Your task to perform on an android device: toggle notifications settings in the gmail app Image 0: 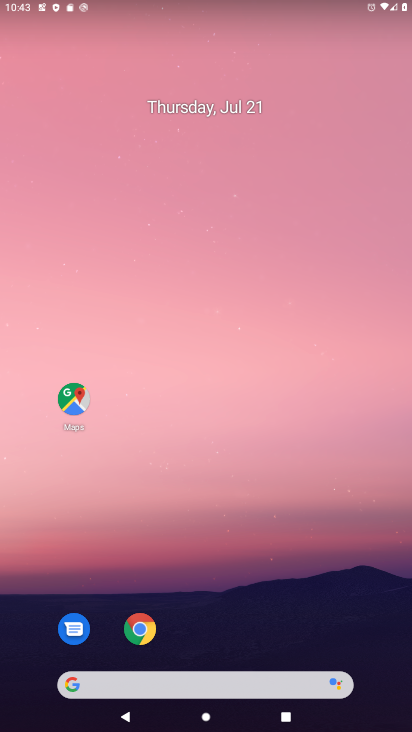
Step 0: drag from (291, 605) to (314, 137)
Your task to perform on an android device: toggle notifications settings in the gmail app Image 1: 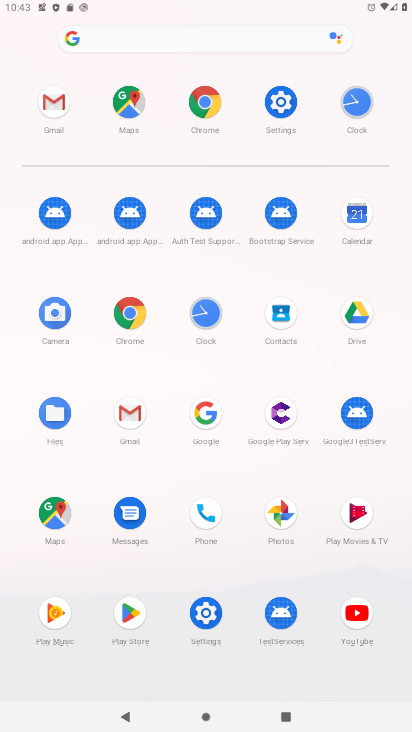
Step 1: click (126, 399)
Your task to perform on an android device: toggle notifications settings in the gmail app Image 2: 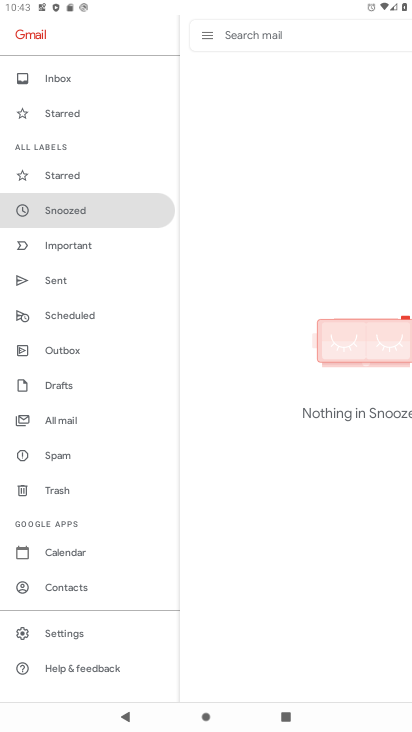
Step 2: press home button
Your task to perform on an android device: toggle notifications settings in the gmail app Image 3: 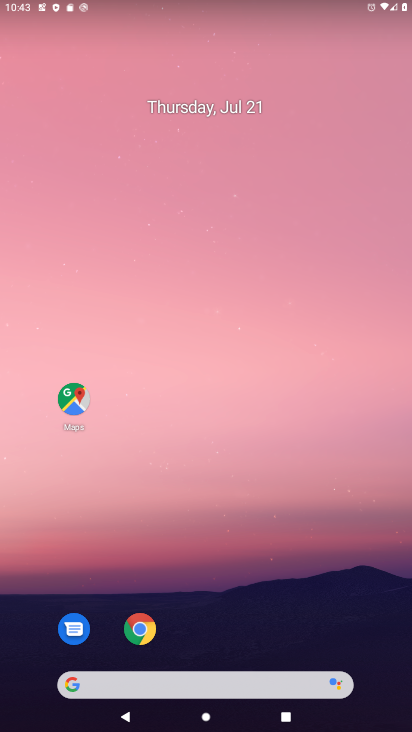
Step 3: drag from (239, 144) to (241, 52)
Your task to perform on an android device: toggle notifications settings in the gmail app Image 4: 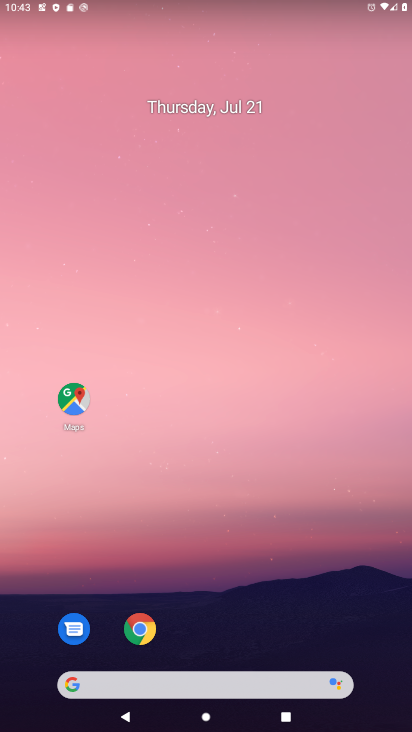
Step 4: drag from (304, 565) to (301, 33)
Your task to perform on an android device: toggle notifications settings in the gmail app Image 5: 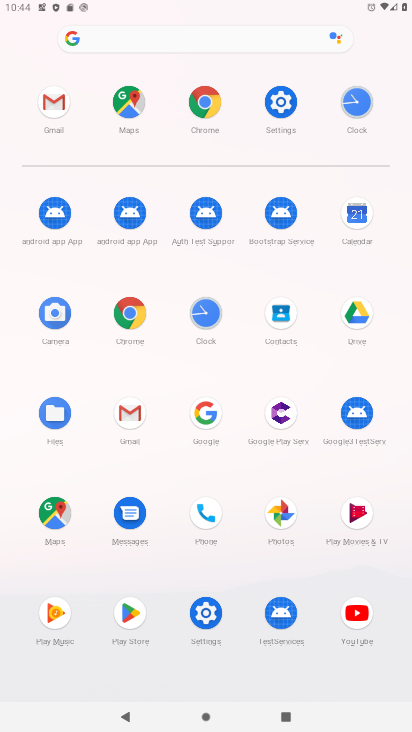
Step 5: click (119, 398)
Your task to perform on an android device: toggle notifications settings in the gmail app Image 6: 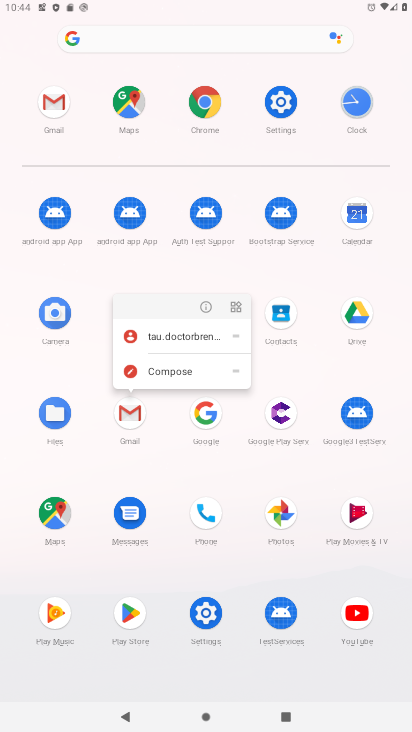
Step 6: click (201, 300)
Your task to perform on an android device: toggle notifications settings in the gmail app Image 7: 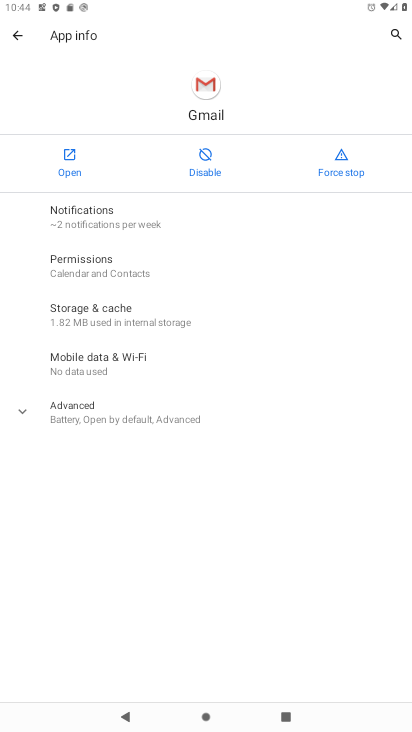
Step 7: click (85, 209)
Your task to perform on an android device: toggle notifications settings in the gmail app Image 8: 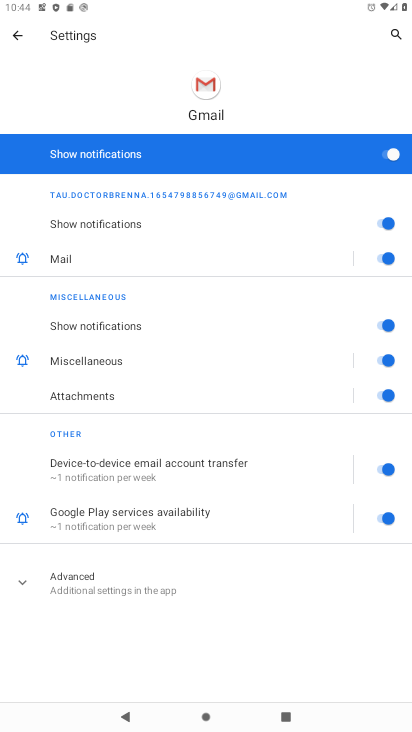
Step 8: click (319, 145)
Your task to perform on an android device: toggle notifications settings in the gmail app Image 9: 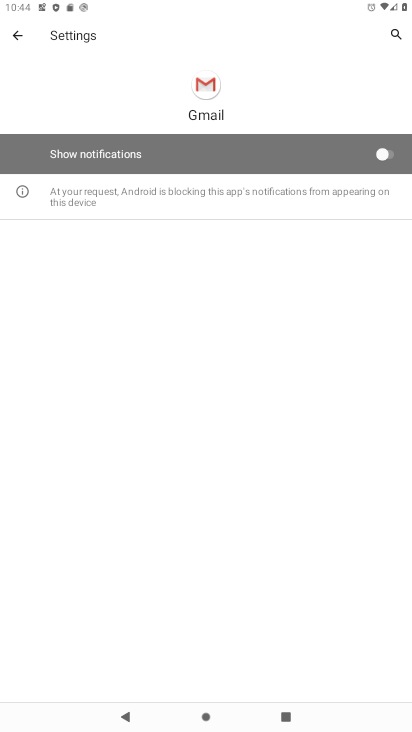
Step 9: task complete